Your task to perform on an android device: Clear all items from cart on amazon.com. Search for bose soundlink mini on amazon.com, select the first entry, add it to the cart, then select checkout. Image 0: 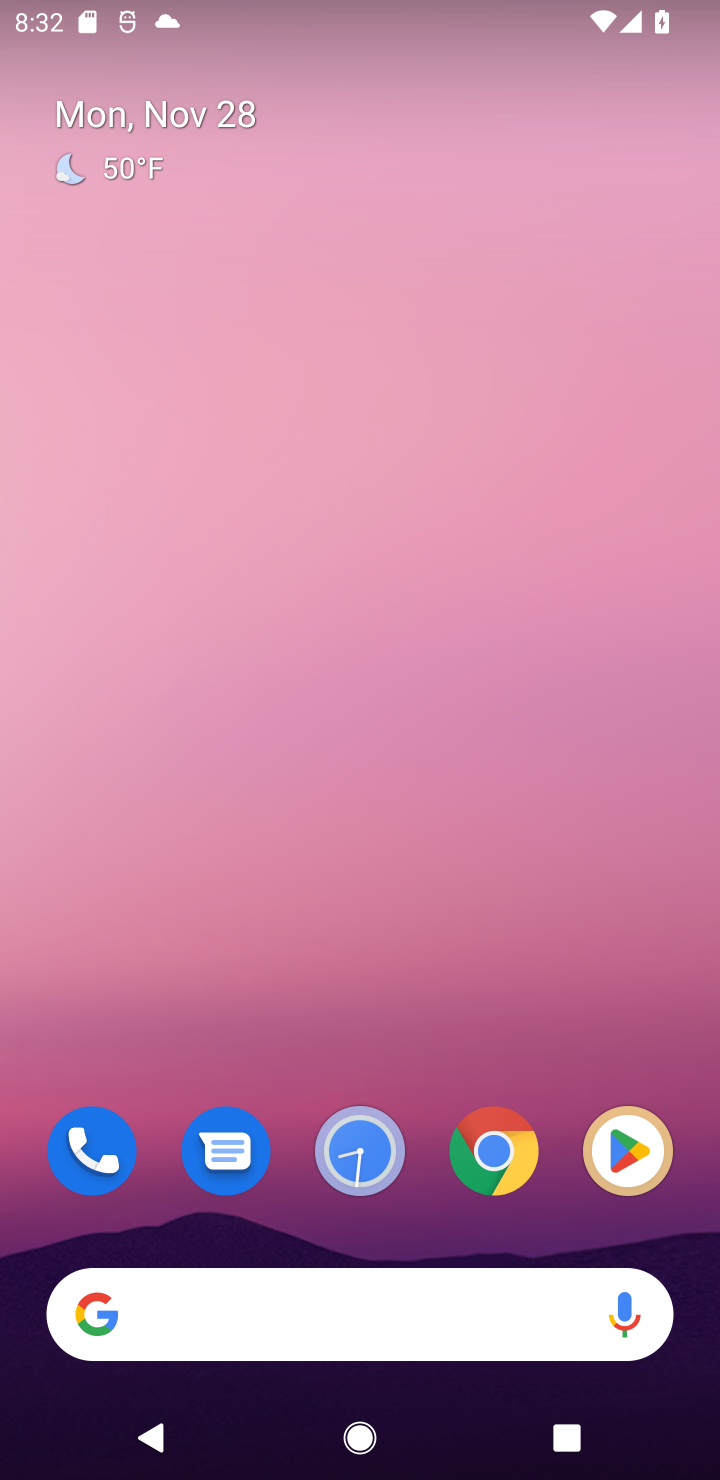
Step 0: click (307, 1328)
Your task to perform on an android device: Clear all items from cart on amazon.com. Search for bose soundlink mini on amazon.com, select the first entry, add it to the cart, then select checkout. Image 1: 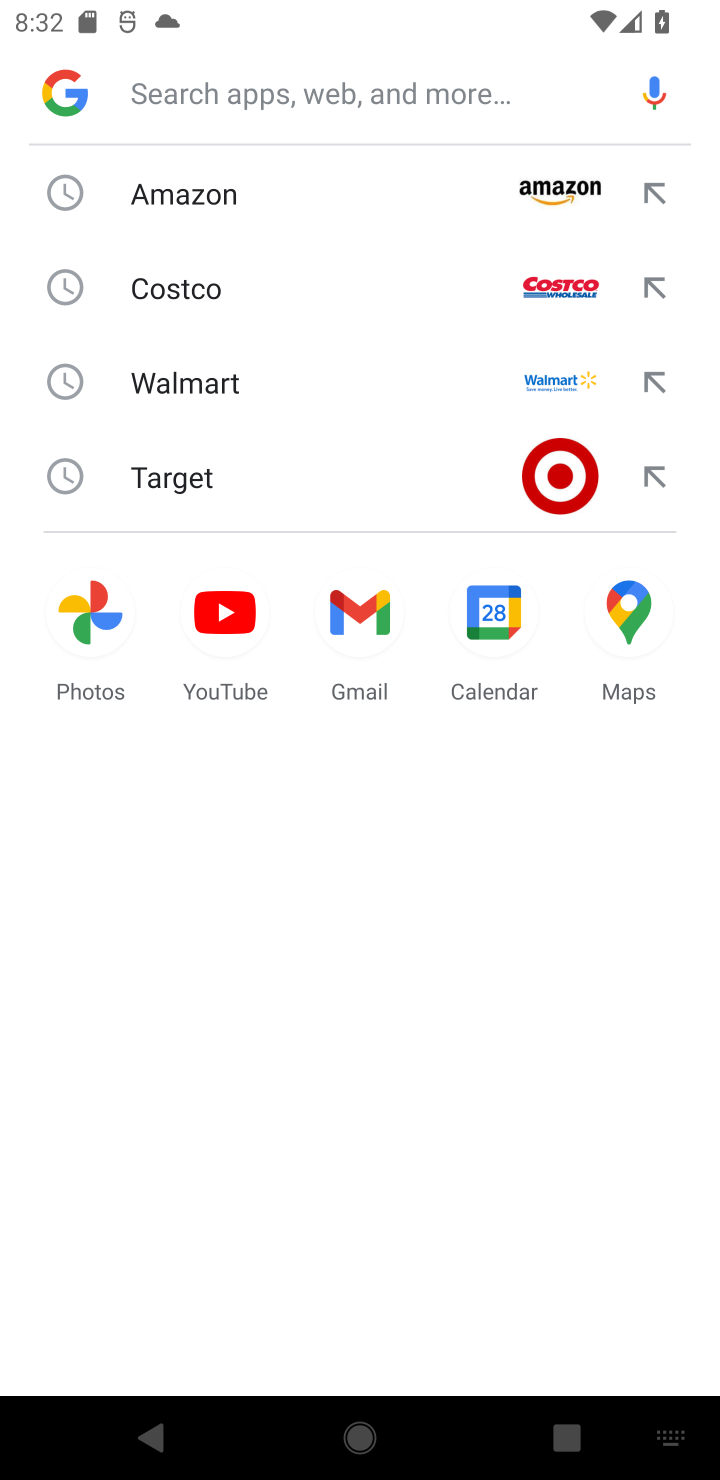
Step 1: type "bose soundlink"
Your task to perform on an android device: Clear all items from cart on amazon.com. Search for bose soundlink mini on amazon.com, select the first entry, add it to the cart, then select checkout. Image 2: 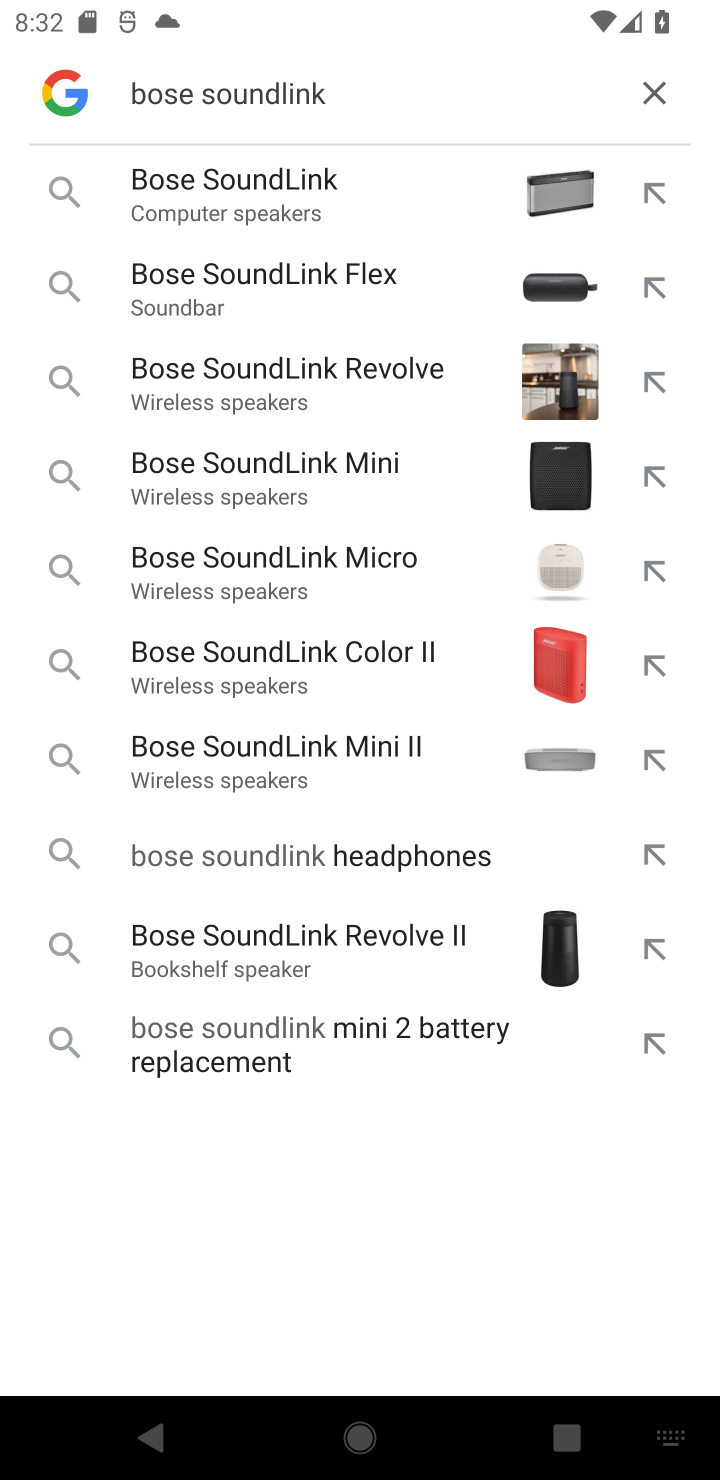
Step 2: click (150, 179)
Your task to perform on an android device: Clear all items from cart on amazon.com. Search for bose soundlink mini on amazon.com, select the first entry, add it to the cart, then select checkout. Image 3: 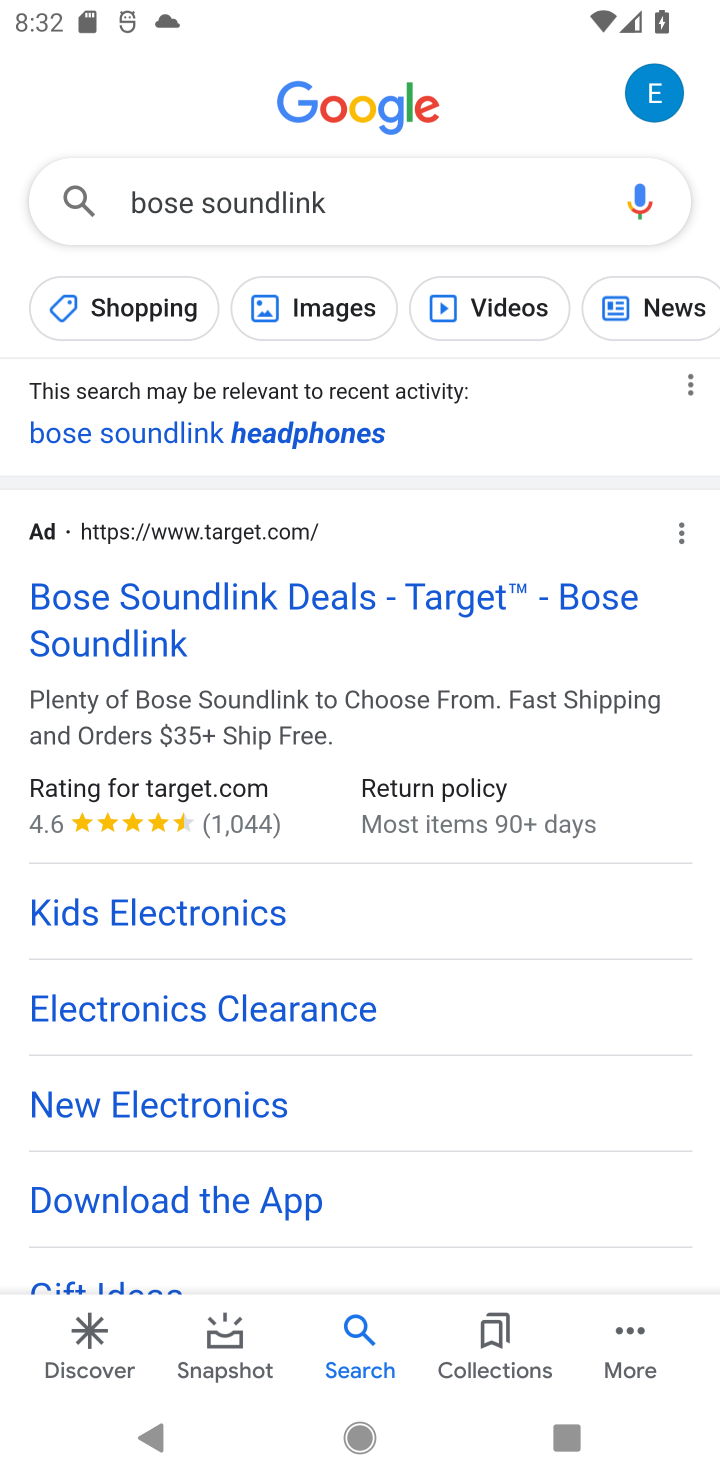
Step 3: click (157, 594)
Your task to perform on an android device: Clear all items from cart on amazon.com. Search for bose soundlink mini on amazon.com, select the first entry, add it to the cart, then select checkout. Image 4: 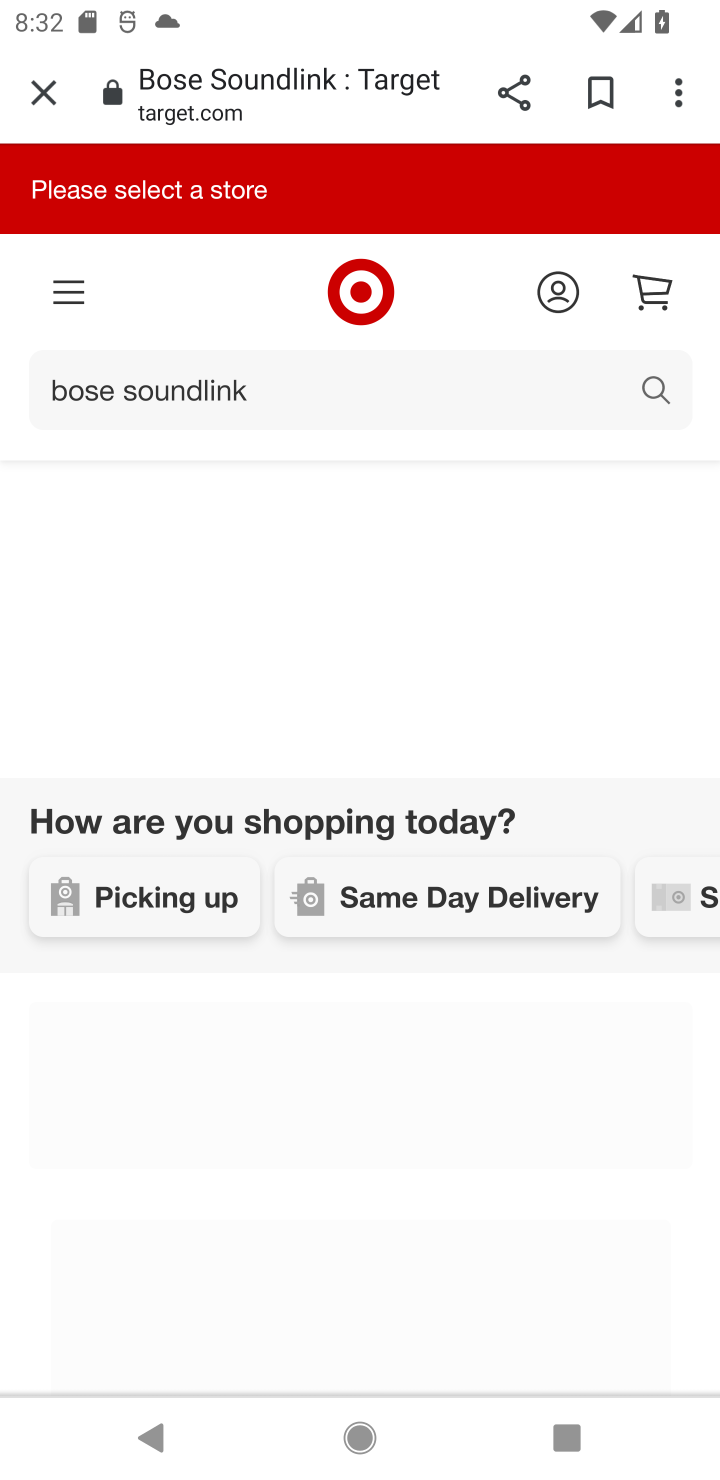
Step 4: task complete